Your task to perform on an android device: open app "Grab" Image 0: 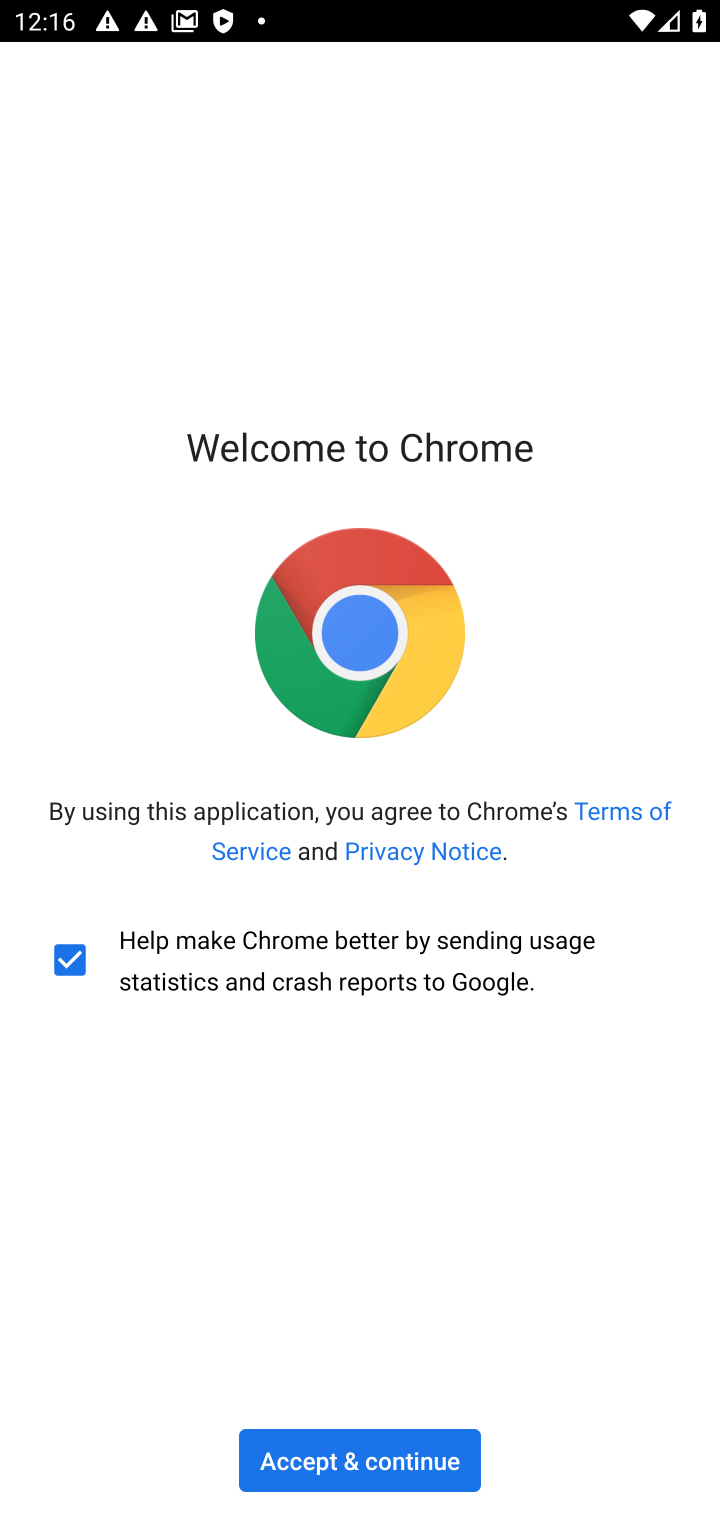
Step 0: press home button
Your task to perform on an android device: open app "Grab" Image 1: 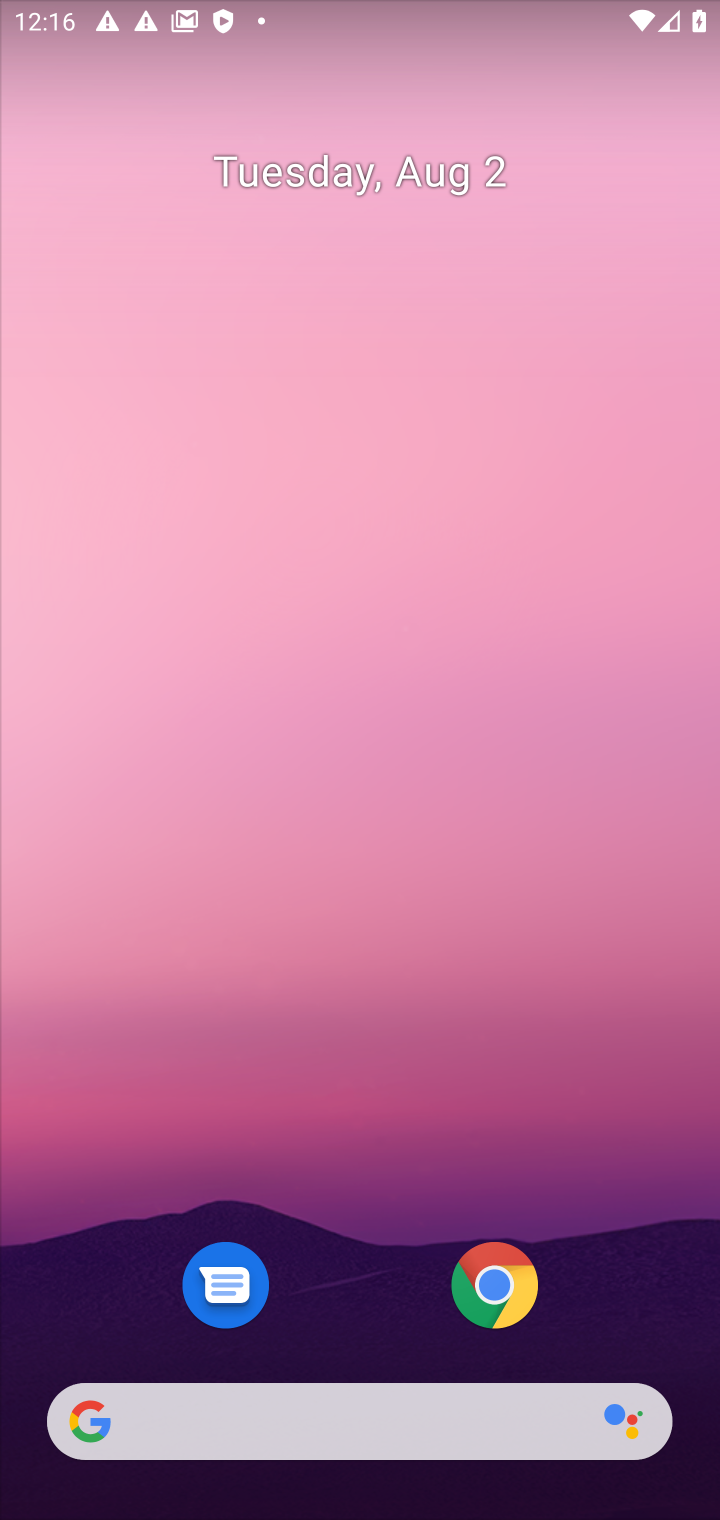
Step 1: drag from (565, 391) to (600, 254)
Your task to perform on an android device: open app "Grab" Image 2: 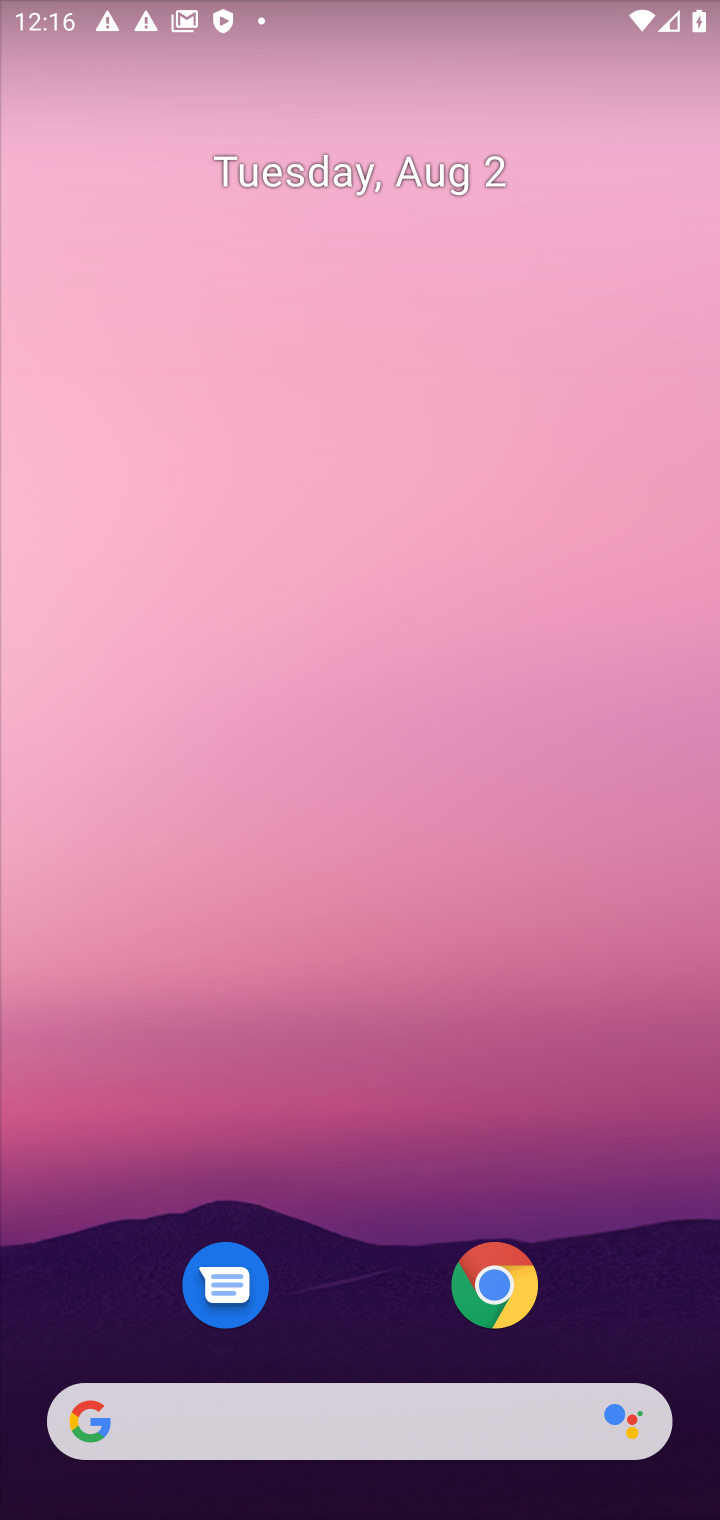
Step 2: drag from (641, 1149) to (718, 637)
Your task to perform on an android device: open app "Grab" Image 3: 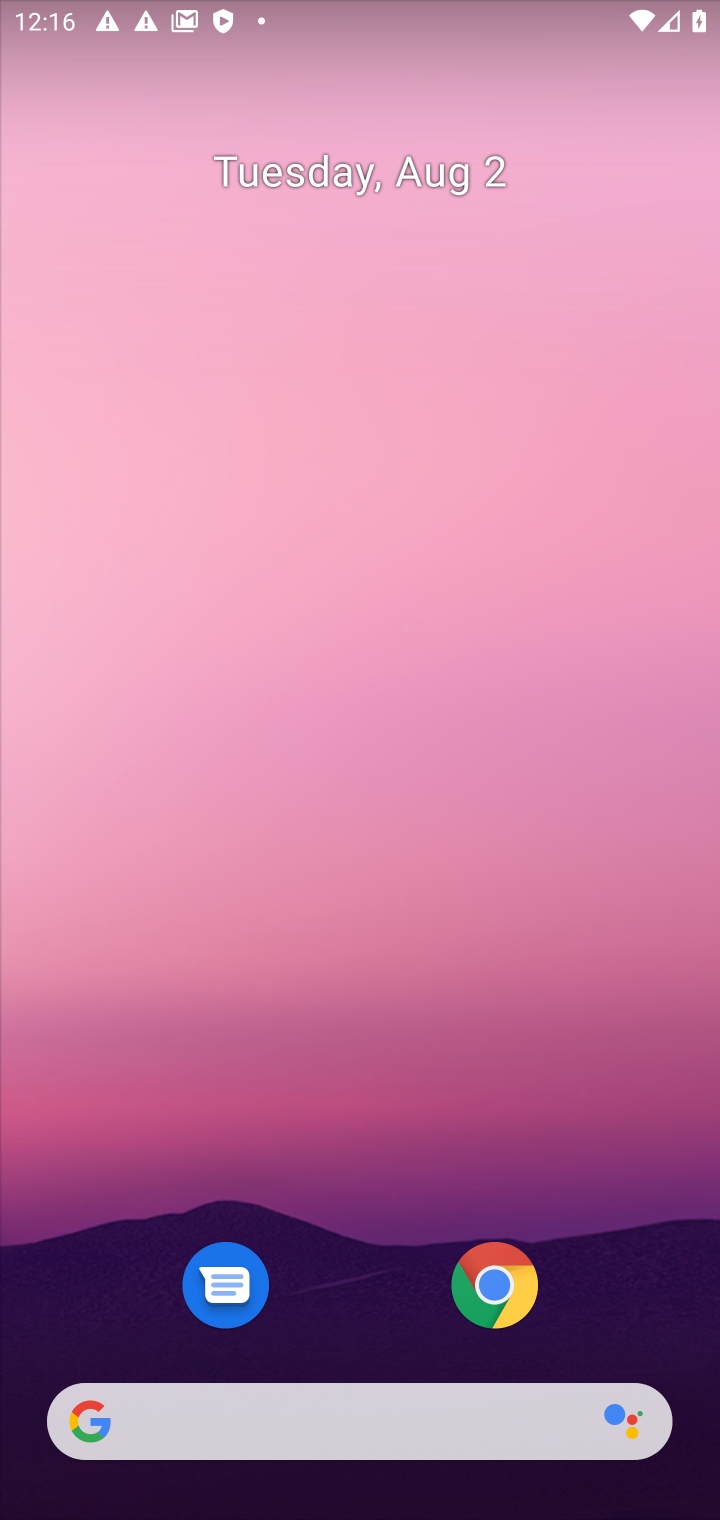
Step 3: drag from (601, 1153) to (565, 117)
Your task to perform on an android device: open app "Grab" Image 4: 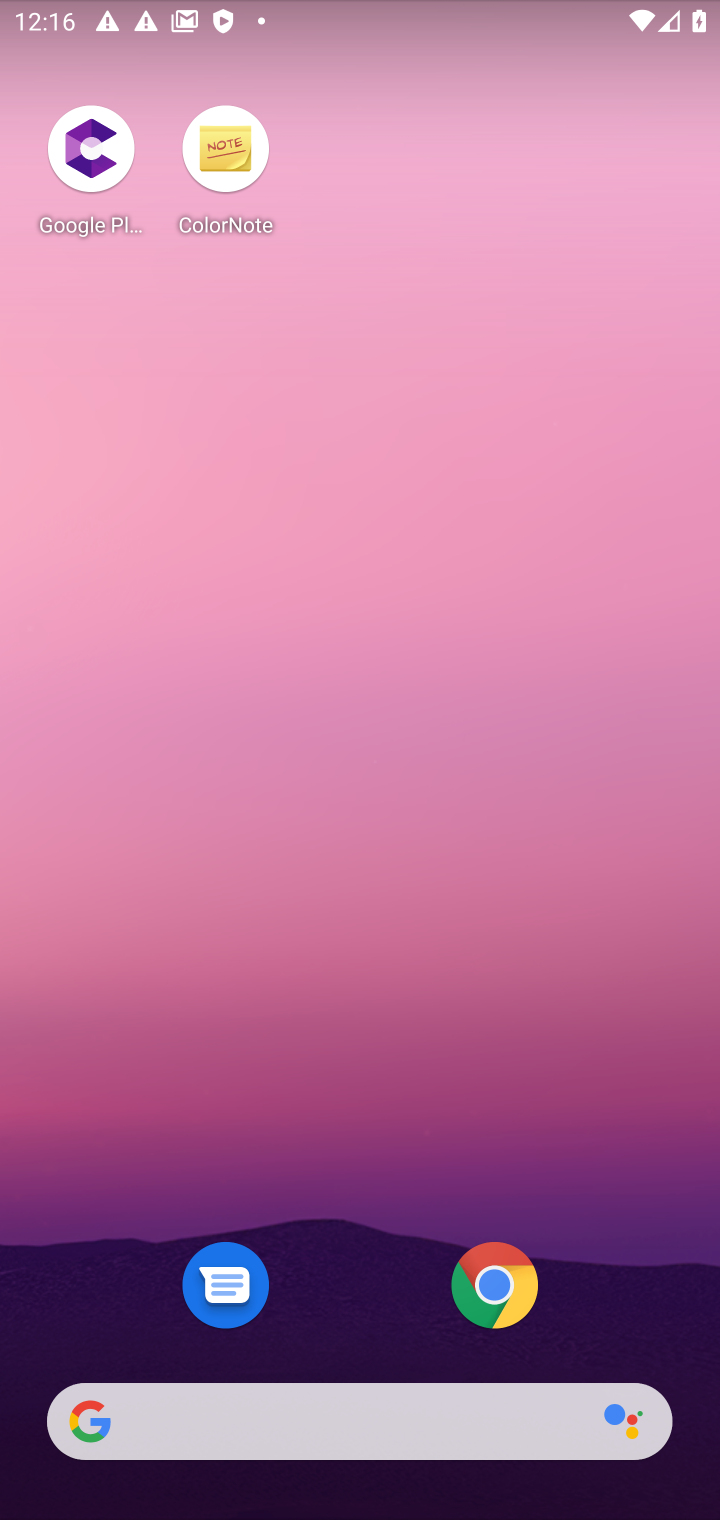
Step 4: drag from (603, 944) to (613, 253)
Your task to perform on an android device: open app "Grab" Image 5: 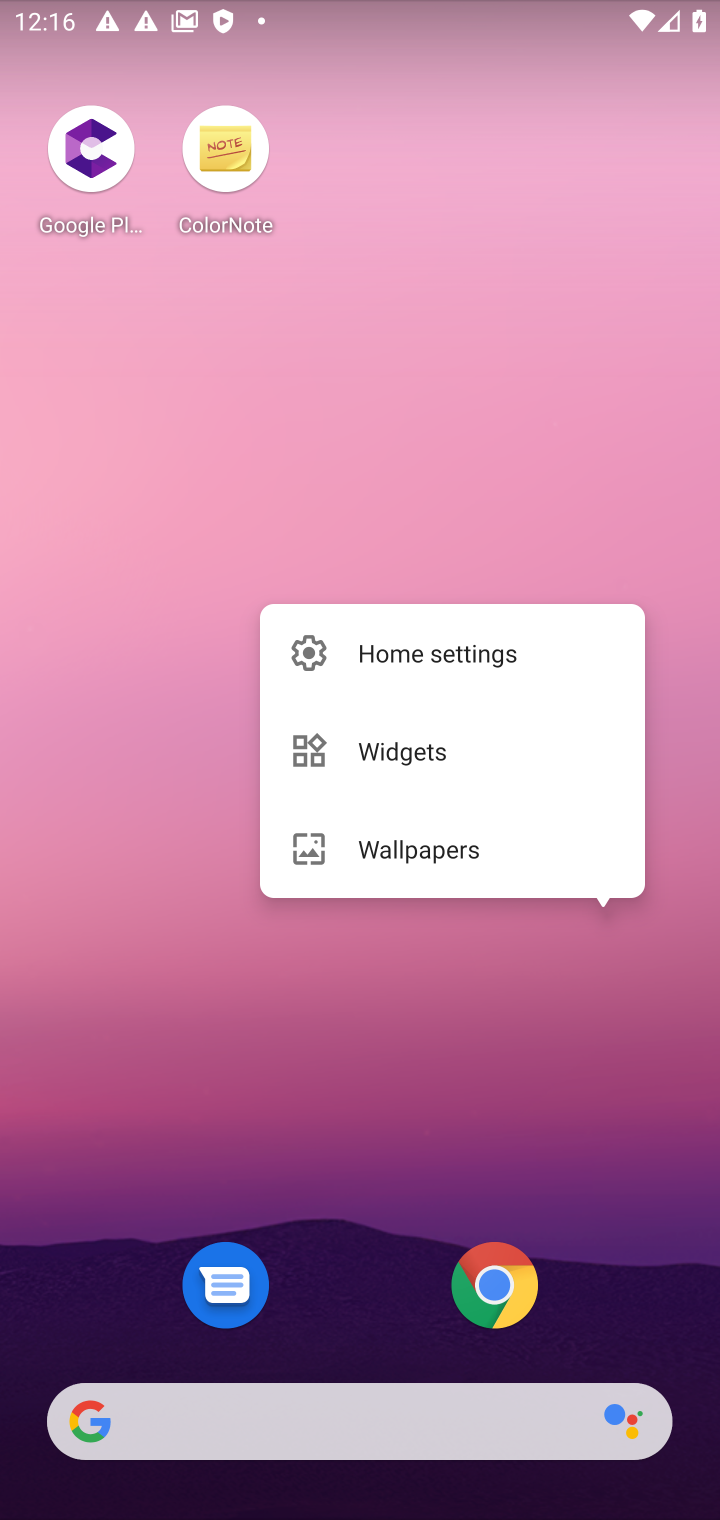
Step 5: click (555, 297)
Your task to perform on an android device: open app "Grab" Image 6: 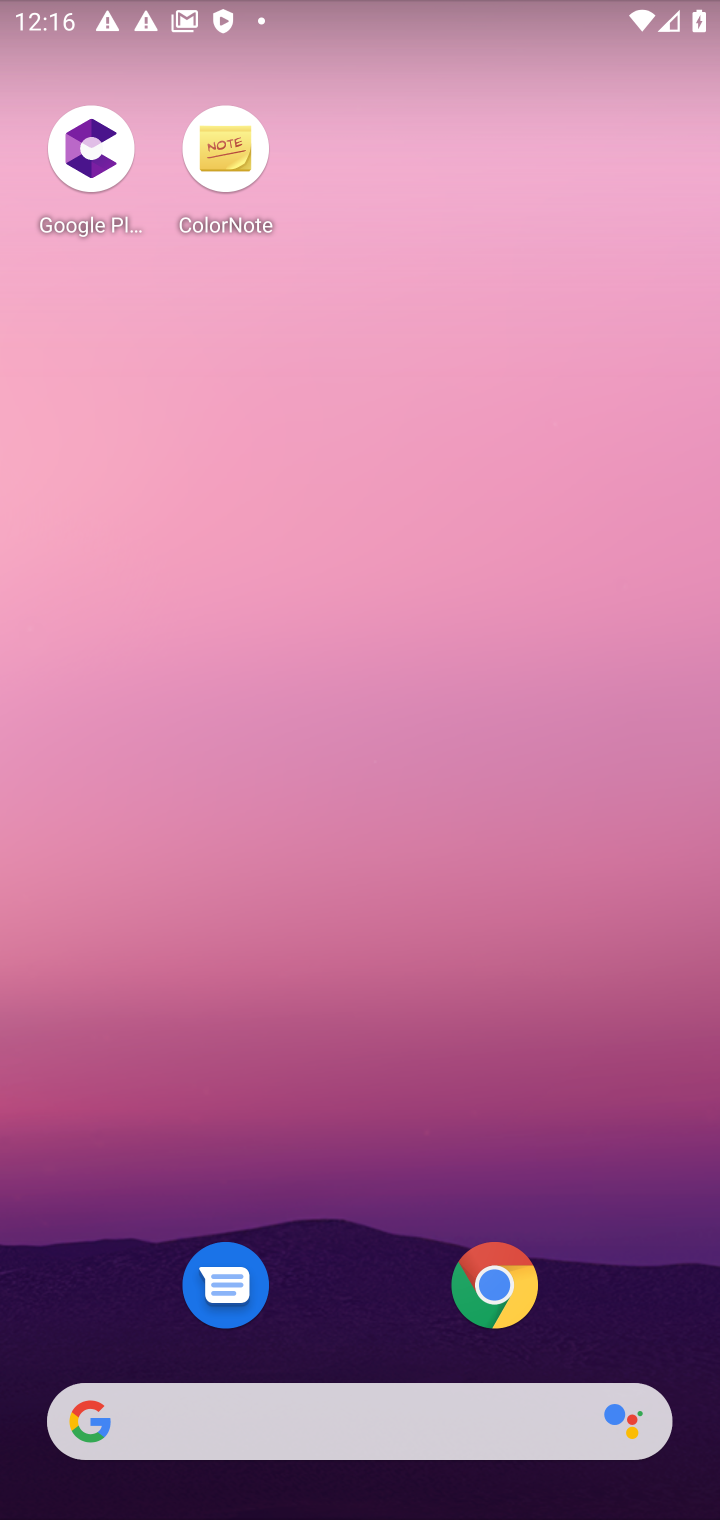
Step 6: drag from (629, 1279) to (617, 219)
Your task to perform on an android device: open app "Grab" Image 7: 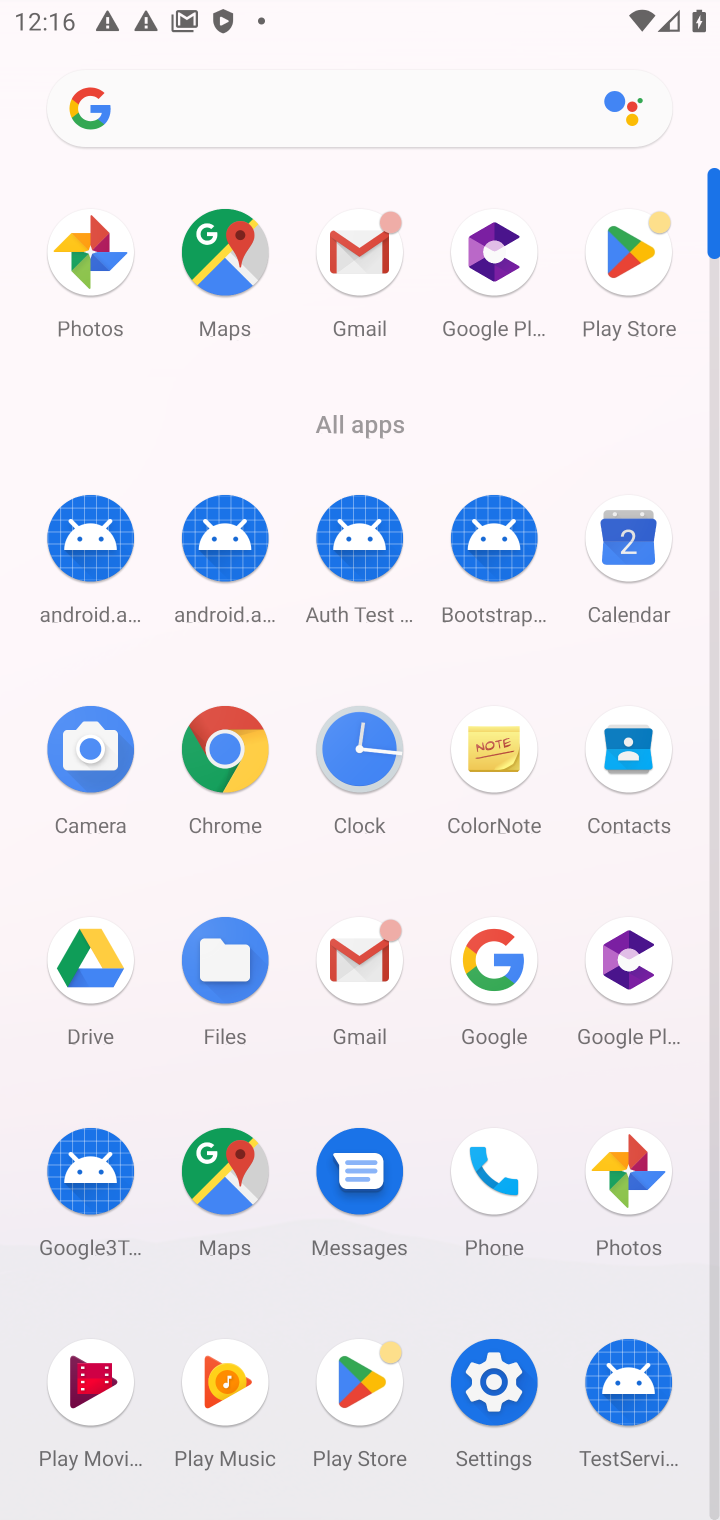
Step 7: click (363, 1389)
Your task to perform on an android device: open app "Grab" Image 8: 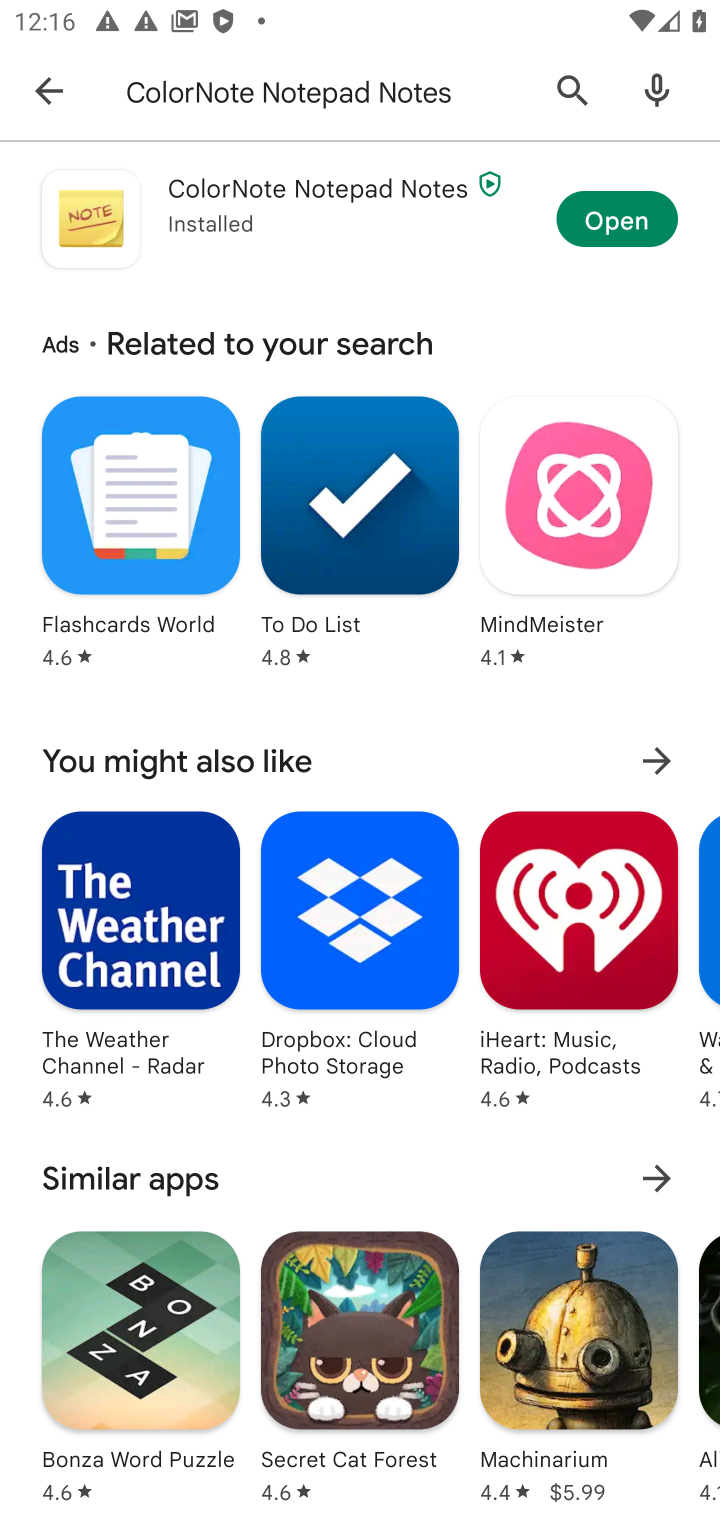
Step 8: click (303, 103)
Your task to perform on an android device: open app "Grab" Image 9: 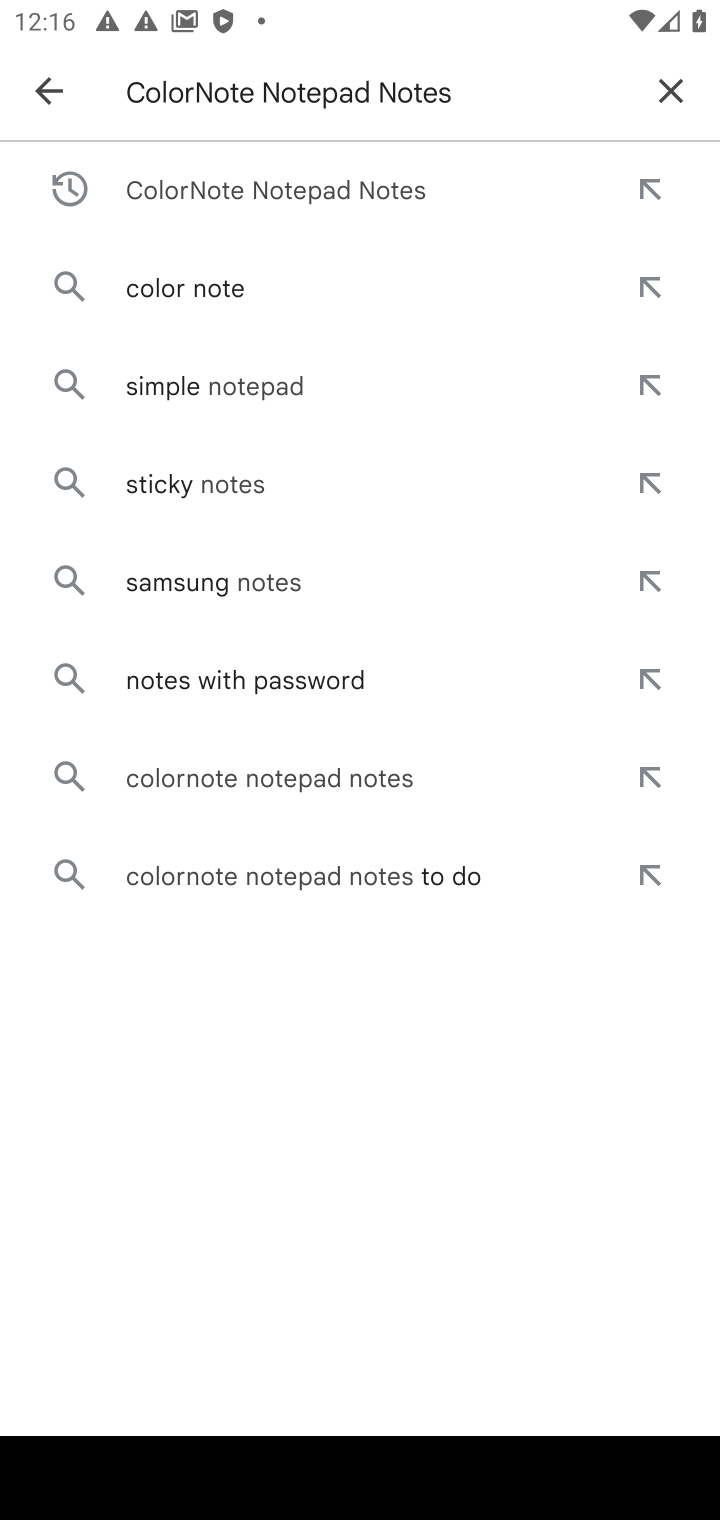
Step 9: click (679, 89)
Your task to perform on an android device: open app "Grab" Image 10: 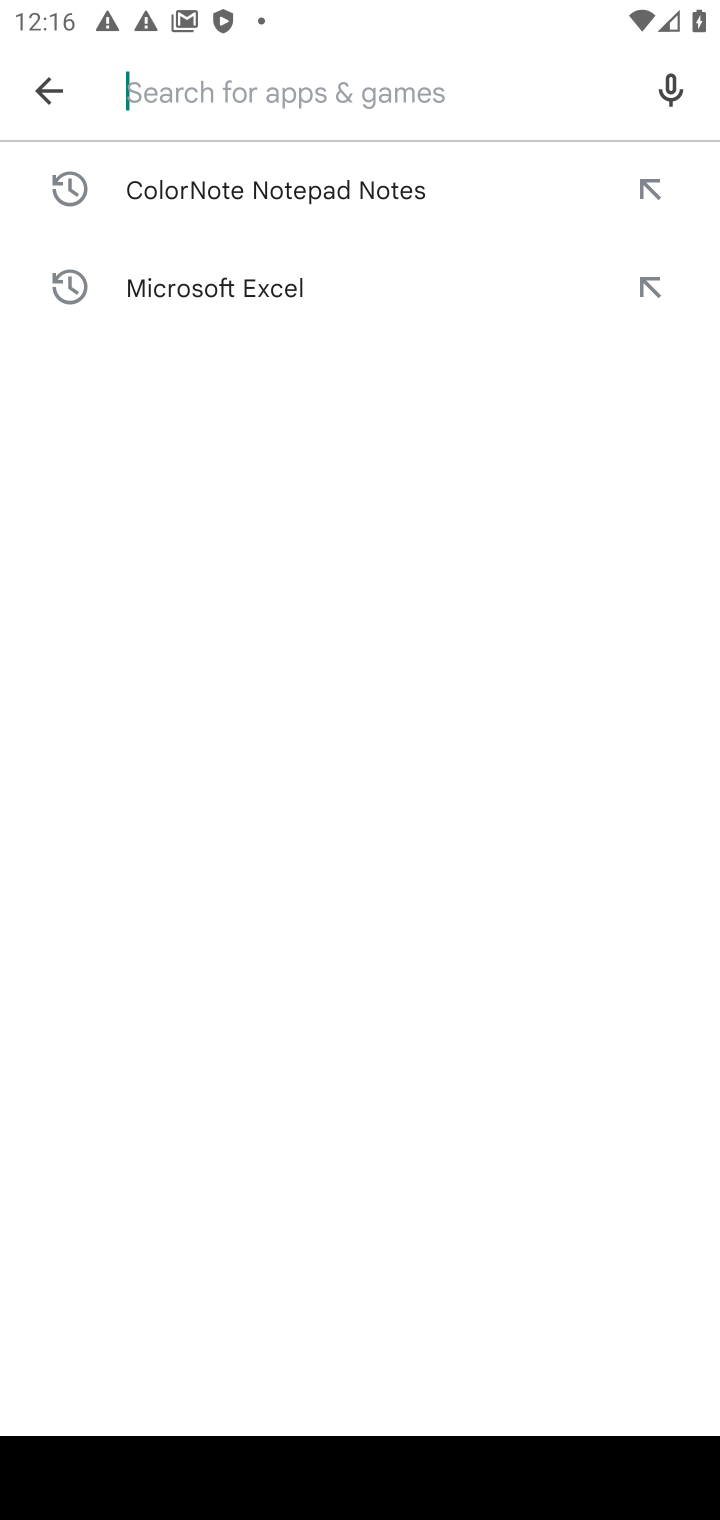
Step 10: type "Grab"
Your task to perform on an android device: open app "Grab" Image 11: 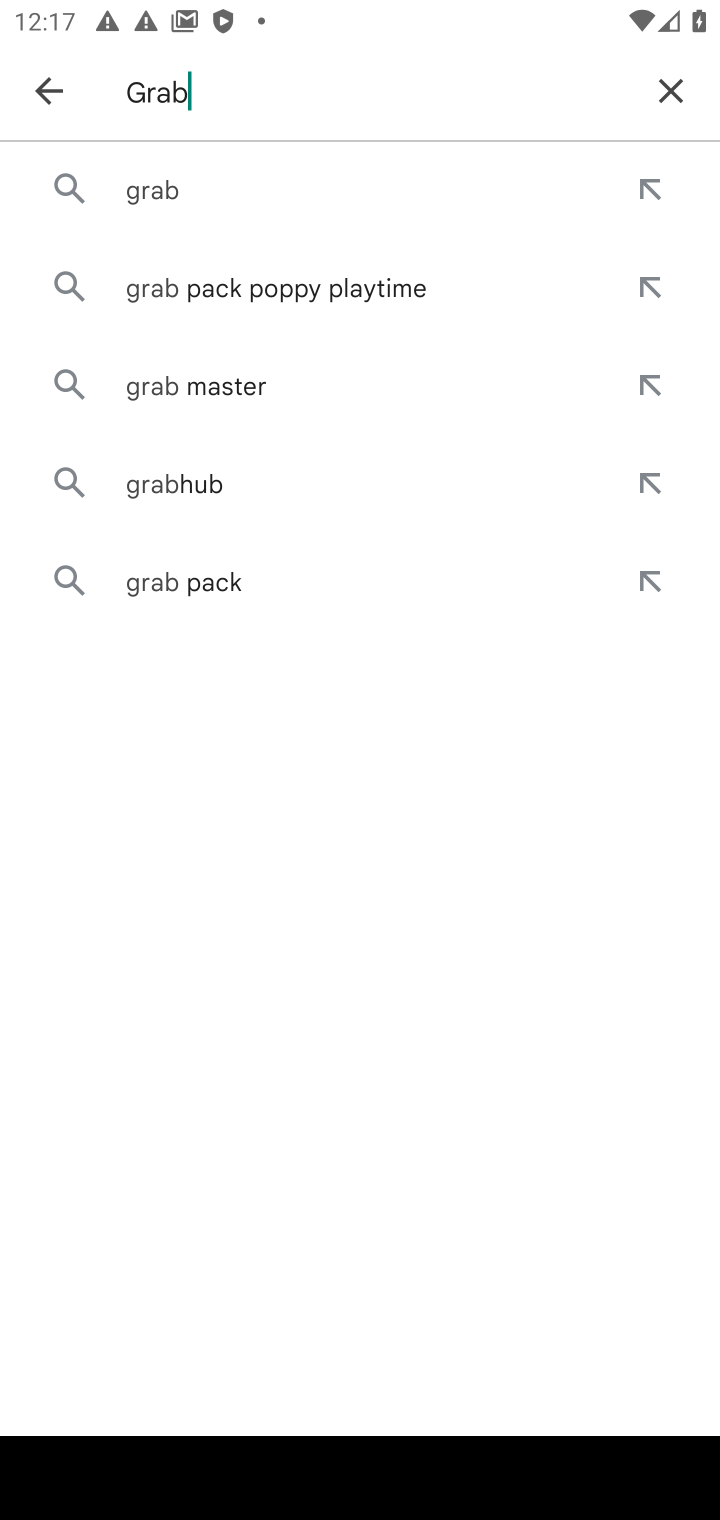
Step 11: press enter
Your task to perform on an android device: open app "Grab" Image 12: 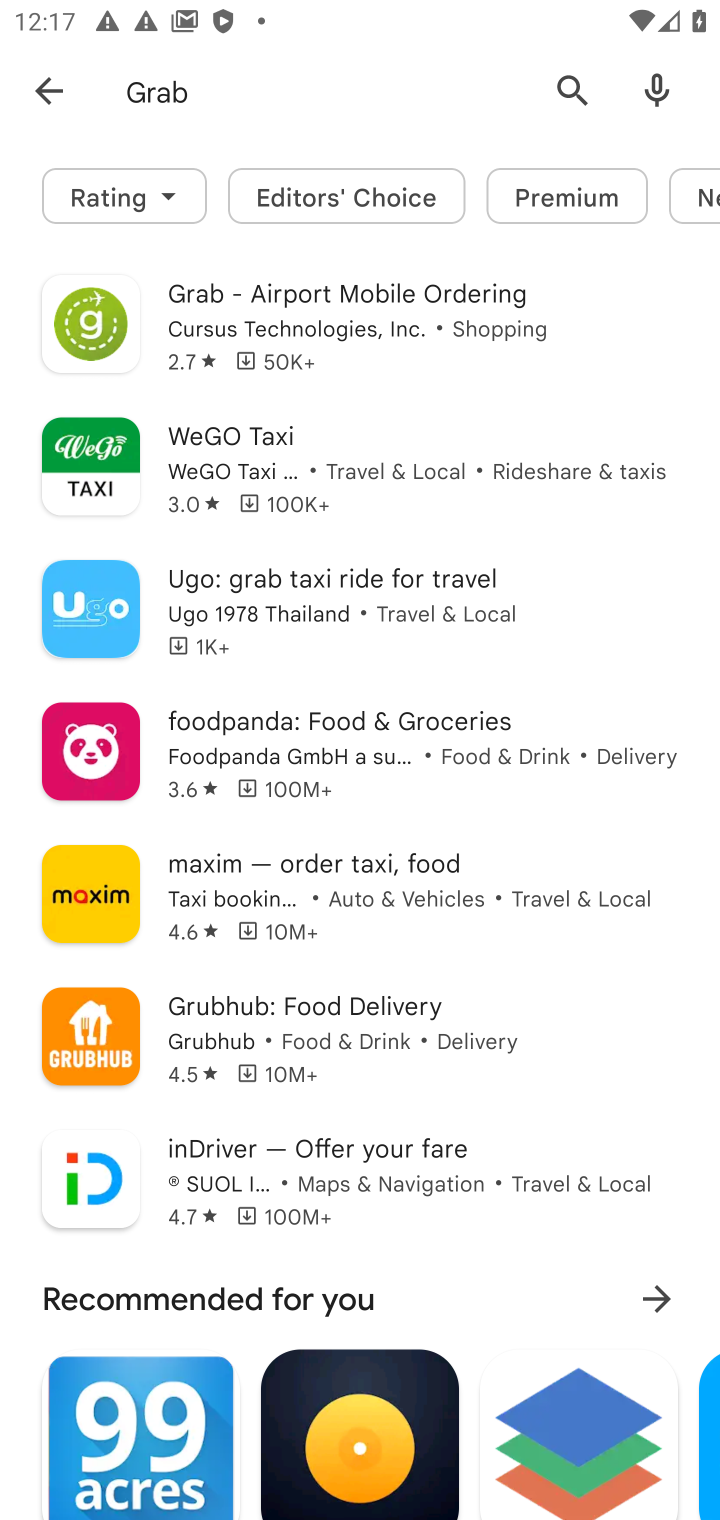
Step 12: click (438, 292)
Your task to perform on an android device: open app "Grab" Image 13: 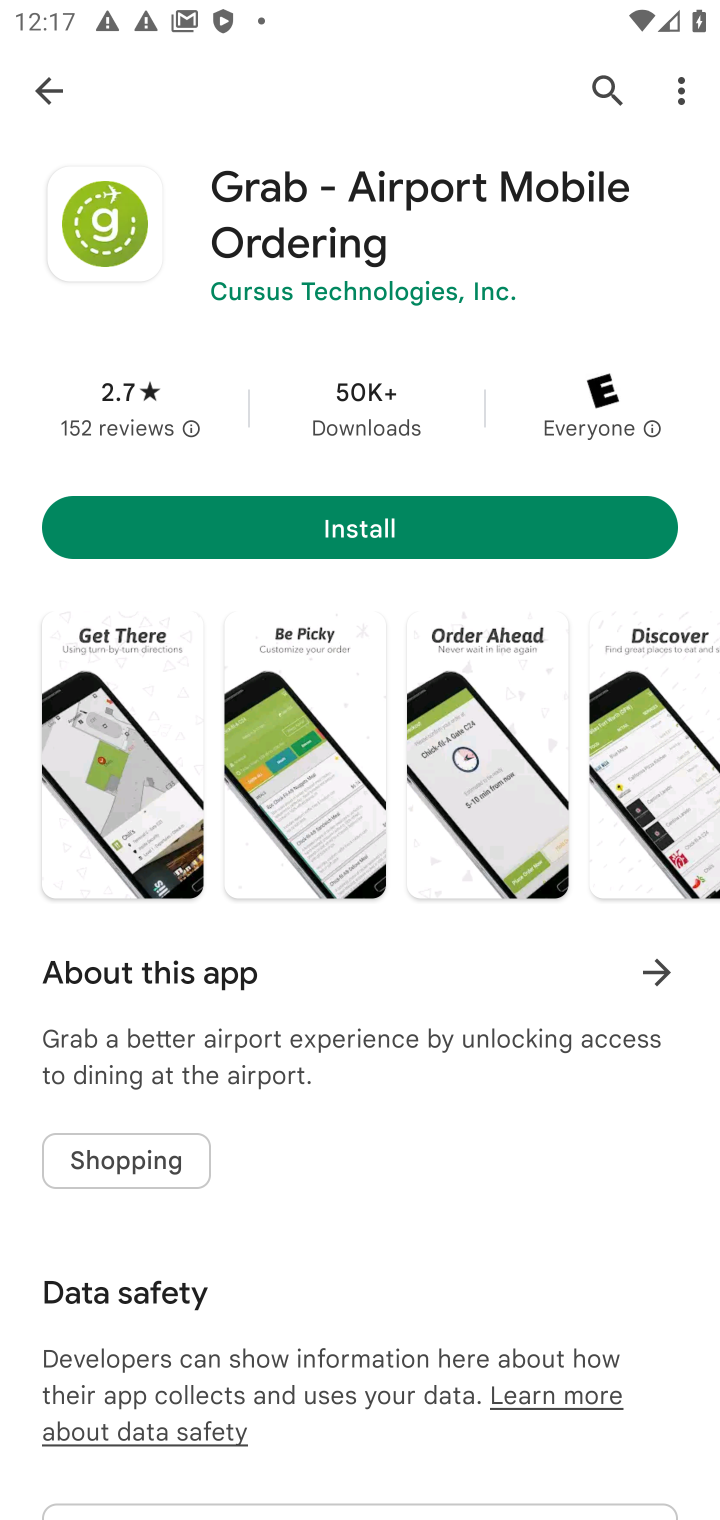
Step 13: task complete